Your task to perform on an android device: What's the weather today? Image 0: 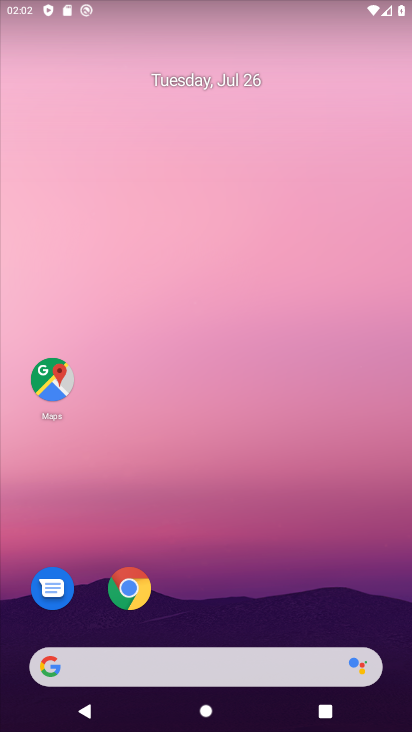
Step 0: click (131, 599)
Your task to perform on an android device: What's the weather today? Image 1: 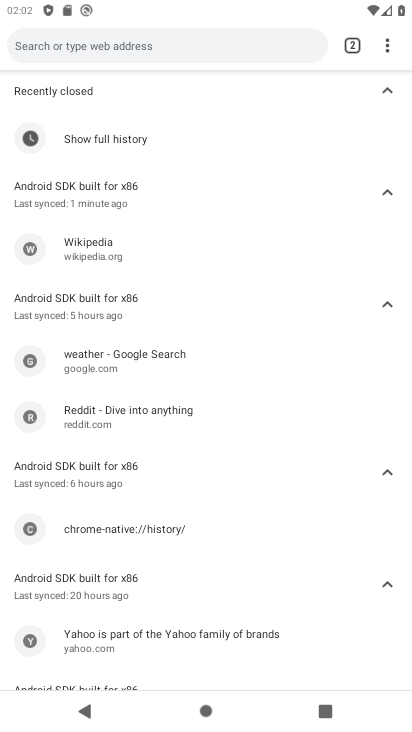
Step 1: click (182, 49)
Your task to perform on an android device: What's the weather today? Image 2: 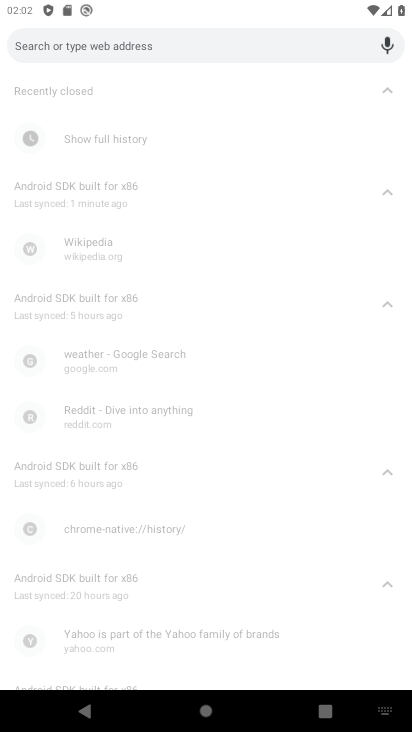
Step 2: click (172, 46)
Your task to perform on an android device: What's the weather today? Image 3: 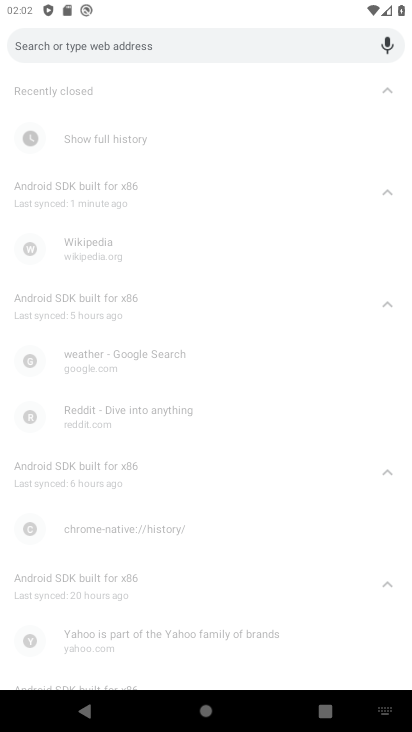
Step 3: type "What's the weather today?"
Your task to perform on an android device: What's the weather today? Image 4: 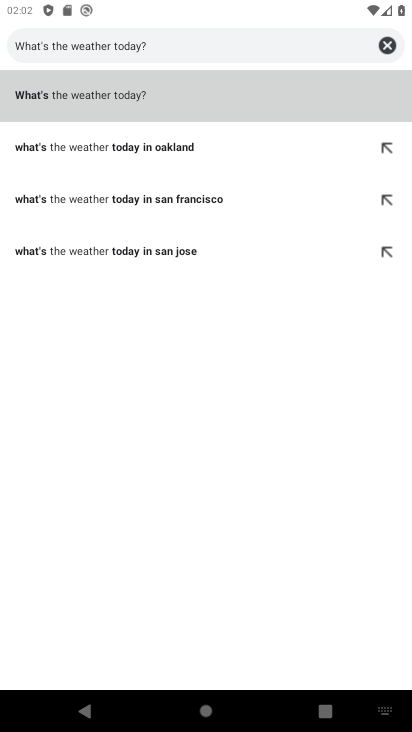
Step 4: click (219, 95)
Your task to perform on an android device: What's the weather today? Image 5: 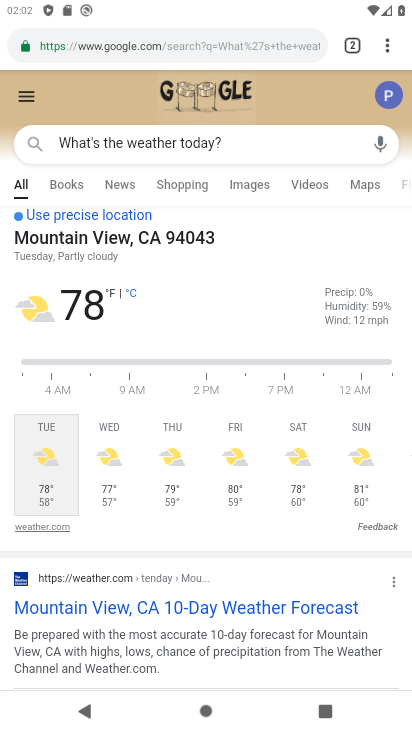
Step 5: task complete